Your task to perform on an android device: What's the weather? Image 0: 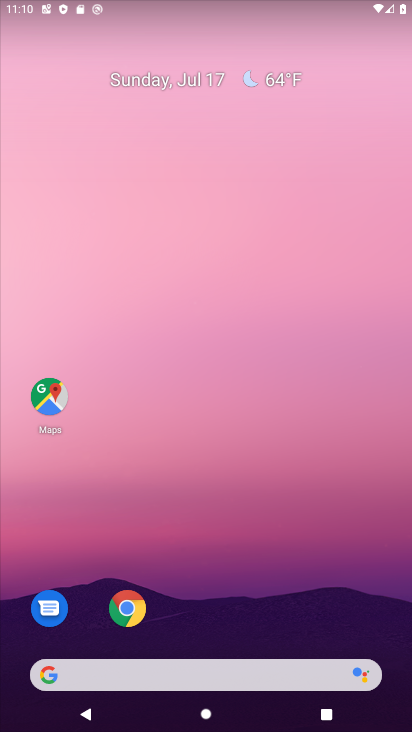
Step 0: drag from (392, 637) to (264, 1)
Your task to perform on an android device: What's the weather? Image 1: 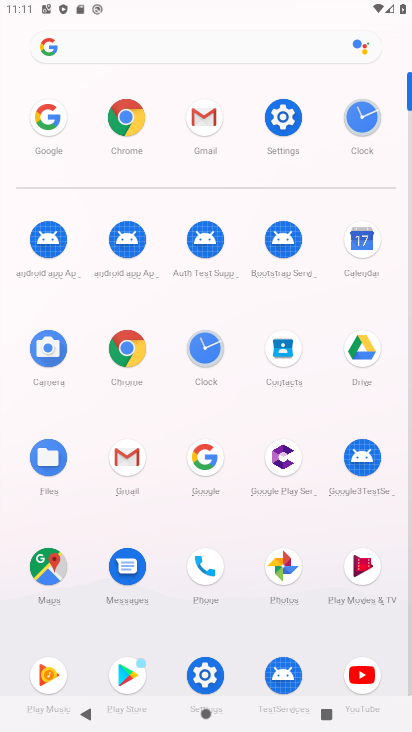
Step 1: click (191, 466)
Your task to perform on an android device: What's the weather? Image 2: 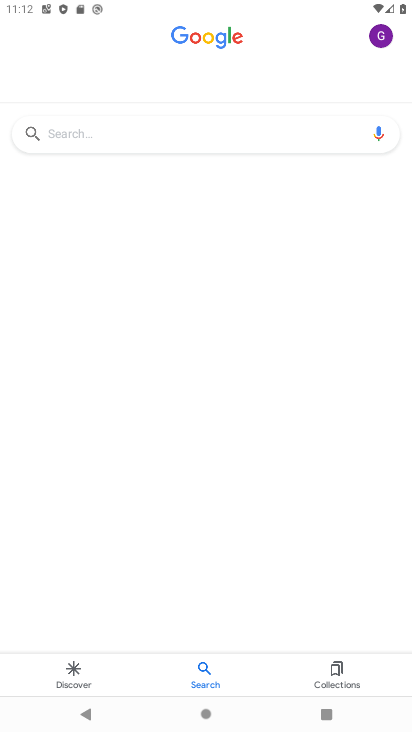
Step 2: click (110, 137)
Your task to perform on an android device: What's the weather? Image 3: 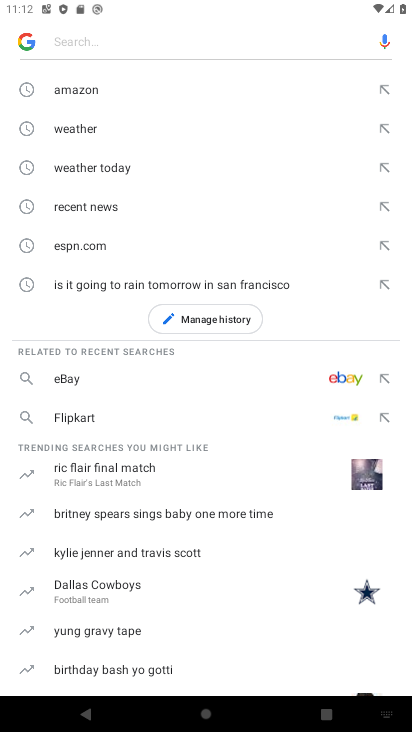
Step 3: drag from (123, 128) to (85, 135)
Your task to perform on an android device: What's the weather? Image 4: 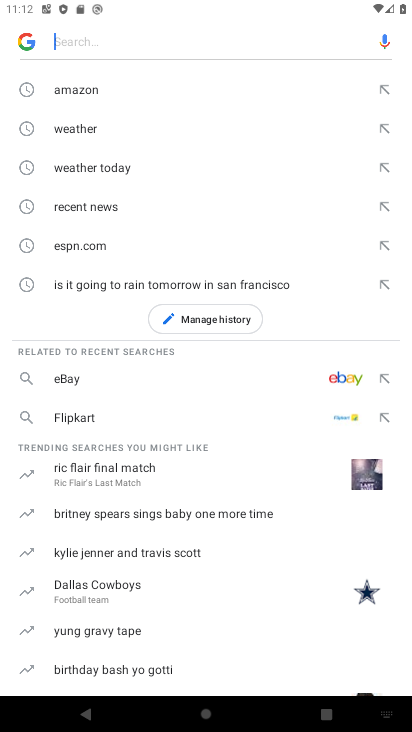
Step 4: click (86, 135)
Your task to perform on an android device: What's the weather? Image 5: 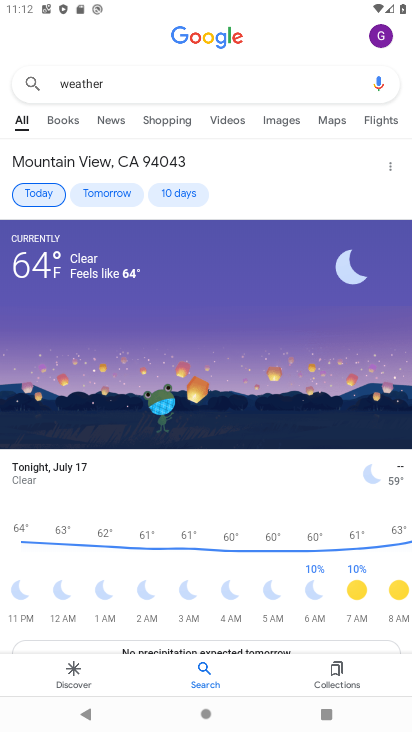
Step 5: task complete